Your task to perform on an android device: find which apps use the phone's location Image 0: 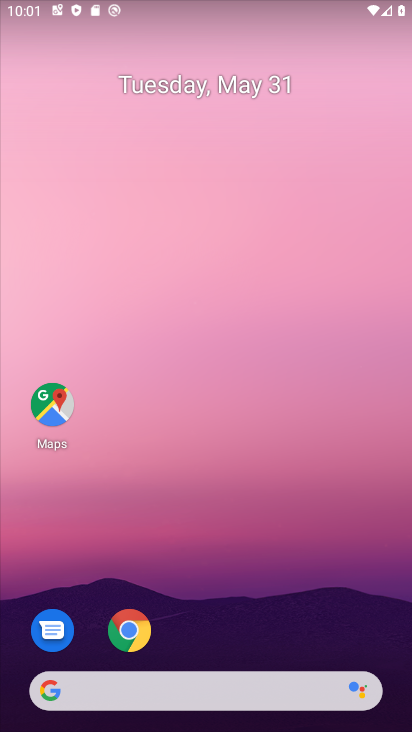
Step 0: drag from (234, 645) to (296, 228)
Your task to perform on an android device: find which apps use the phone's location Image 1: 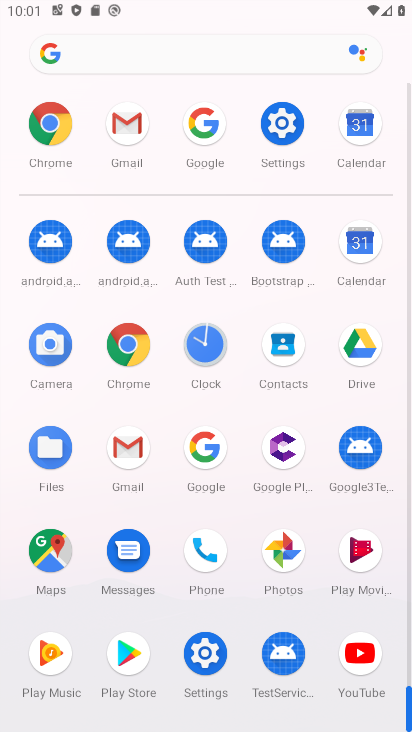
Step 1: click (290, 144)
Your task to perform on an android device: find which apps use the phone's location Image 2: 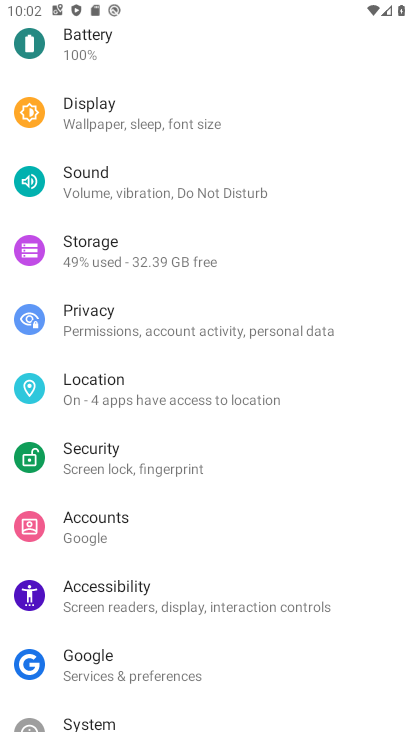
Step 2: drag from (166, 471) to (206, 264)
Your task to perform on an android device: find which apps use the phone's location Image 3: 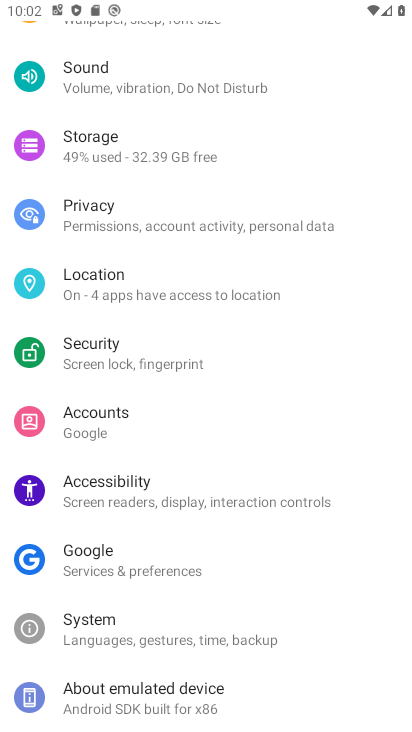
Step 3: click (176, 288)
Your task to perform on an android device: find which apps use the phone's location Image 4: 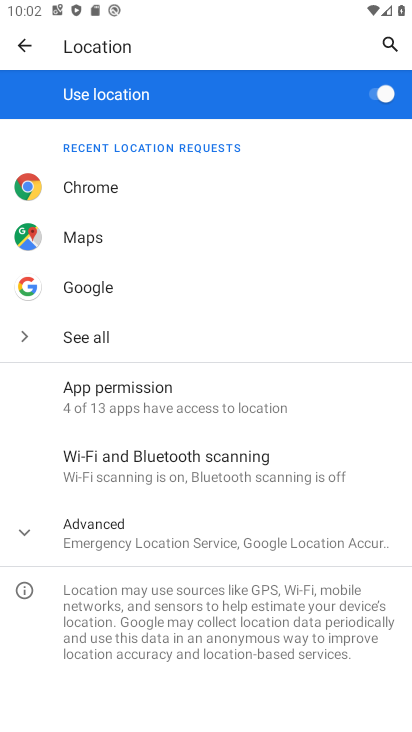
Step 4: click (137, 393)
Your task to perform on an android device: find which apps use the phone's location Image 5: 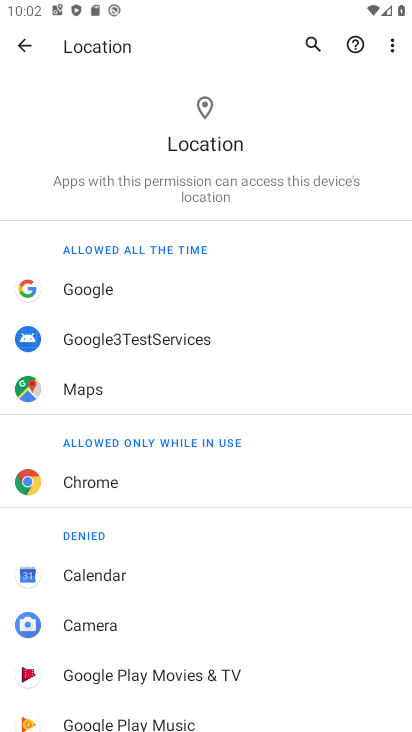
Step 5: task complete